Your task to perform on an android device: choose inbox layout in the gmail app Image 0: 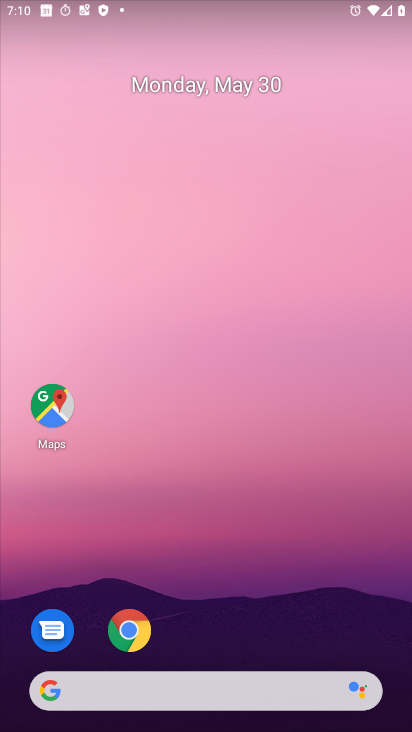
Step 0: drag from (367, 654) to (249, 2)
Your task to perform on an android device: choose inbox layout in the gmail app Image 1: 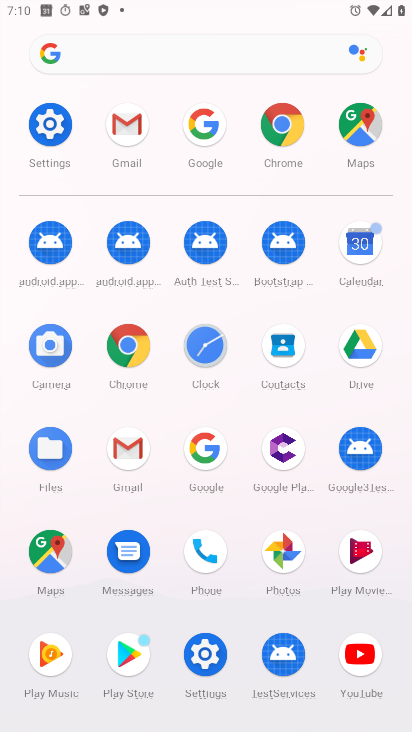
Step 1: click (134, 448)
Your task to perform on an android device: choose inbox layout in the gmail app Image 2: 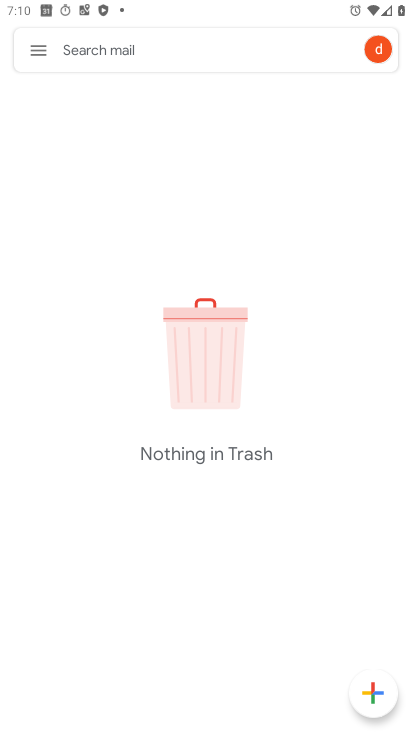
Step 2: click (36, 58)
Your task to perform on an android device: choose inbox layout in the gmail app Image 3: 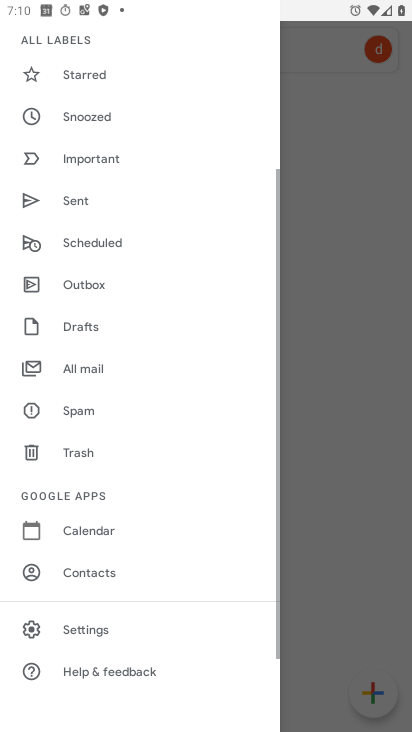
Step 3: drag from (73, 73) to (129, 729)
Your task to perform on an android device: choose inbox layout in the gmail app Image 4: 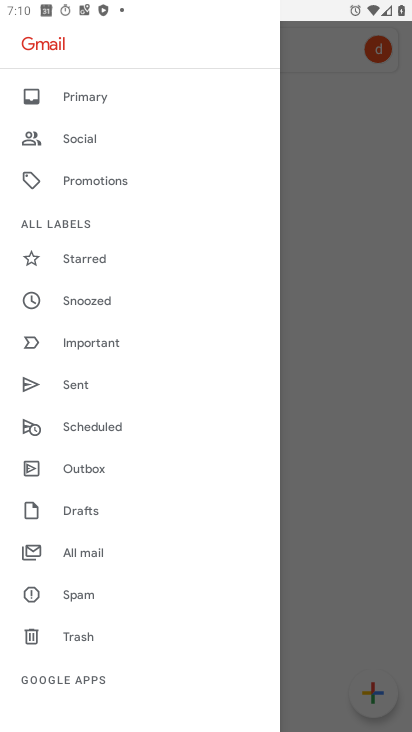
Step 4: click (123, 104)
Your task to perform on an android device: choose inbox layout in the gmail app Image 5: 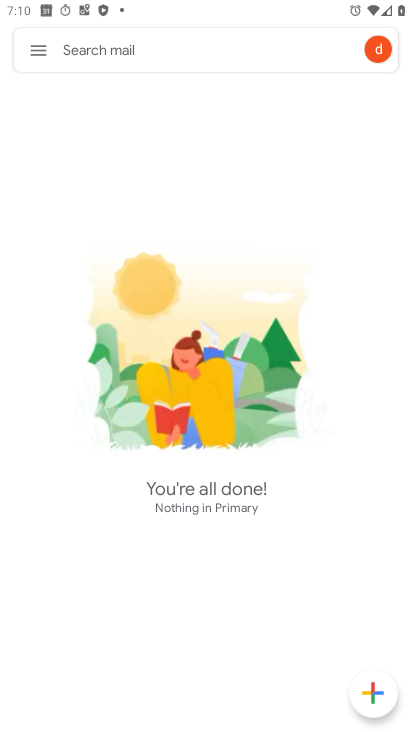
Step 5: task complete